Your task to perform on an android device: Open Maps and search for coffee Image 0: 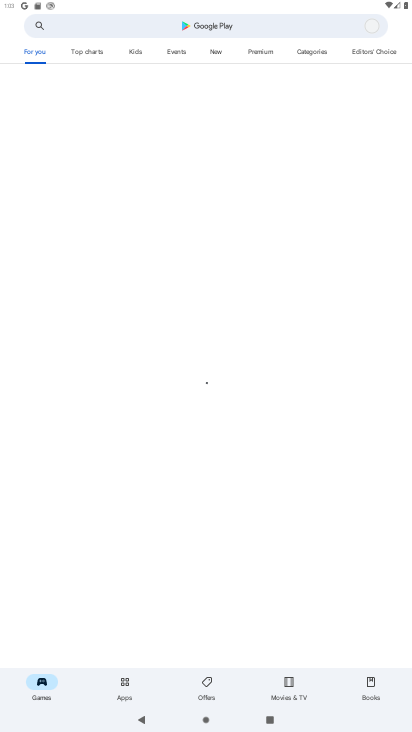
Step 0: press home button
Your task to perform on an android device: Open Maps and search for coffee Image 1: 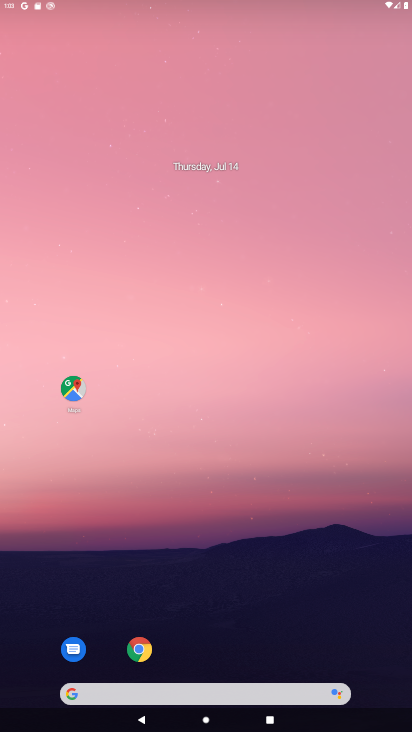
Step 1: drag from (238, 645) to (311, 8)
Your task to perform on an android device: Open Maps and search for coffee Image 2: 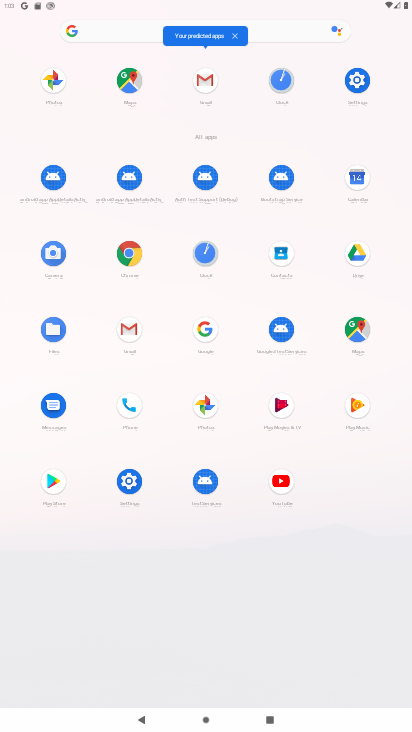
Step 2: click (359, 335)
Your task to perform on an android device: Open Maps and search for coffee Image 3: 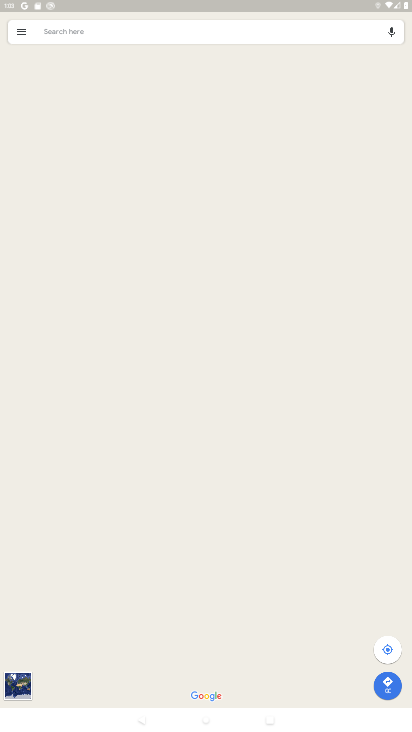
Step 3: click (115, 29)
Your task to perform on an android device: Open Maps and search for coffee Image 4: 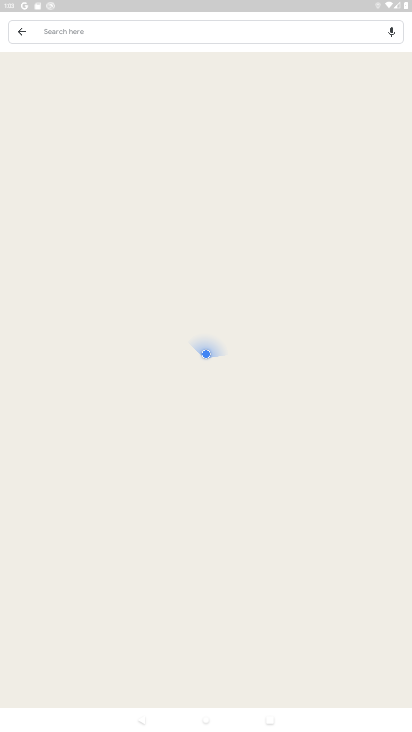
Step 4: click (194, 34)
Your task to perform on an android device: Open Maps and search for coffee Image 5: 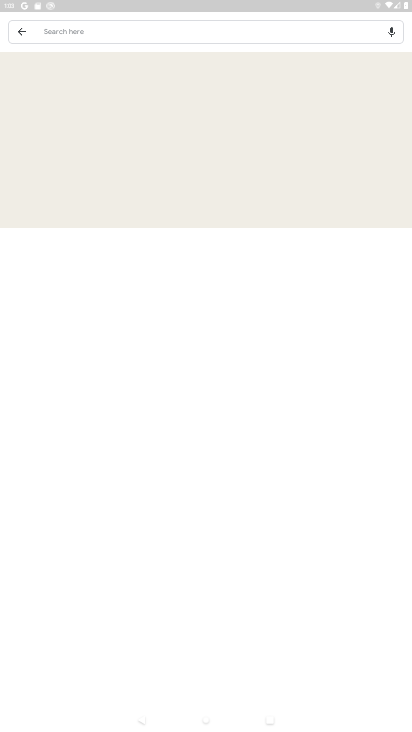
Step 5: click (59, 37)
Your task to perform on an android device: Open Maps and search for coffee Image 6: 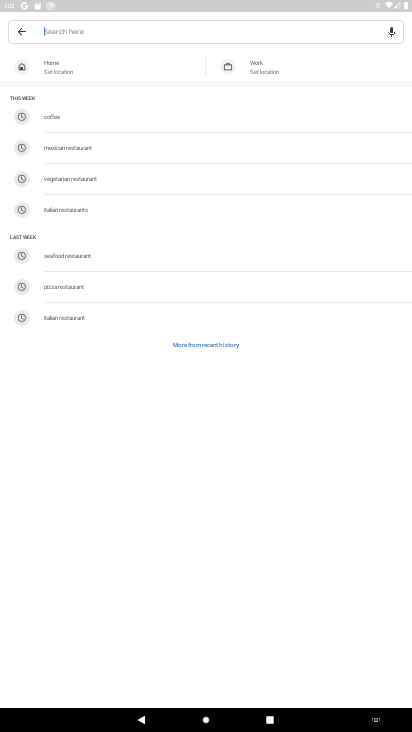
Step 6: type "coffee"
Your task to perform on an android device: Open Maps and search for coffee Image 7: 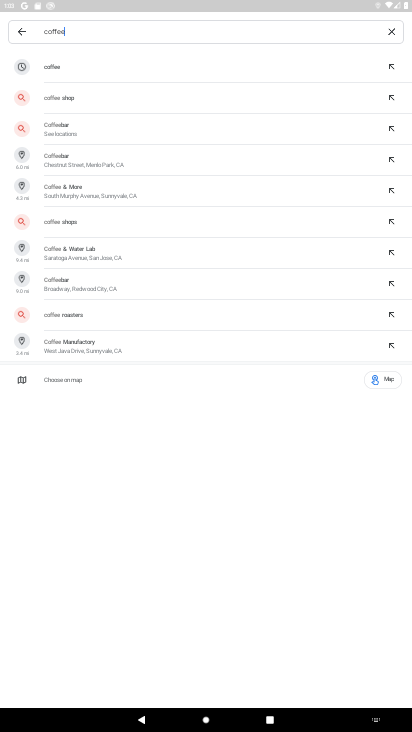
Step 7: click (148, 73)
Your task to perform on an android device: Open Maps and search for coffee Image 8: 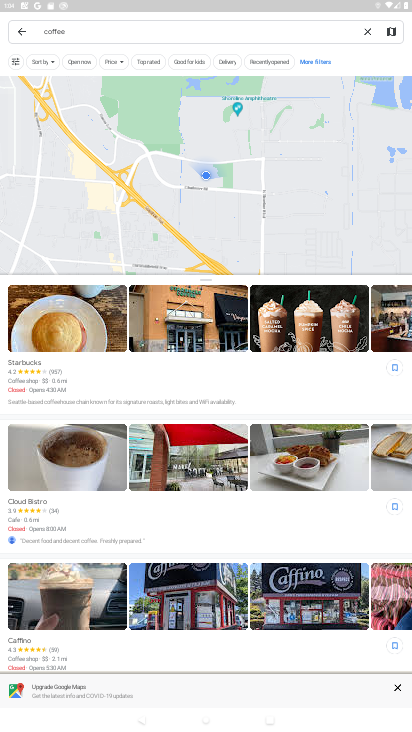
Step 8: task complete